Your task to perform on an android device: turn pop-ups on in chrome Image 0: 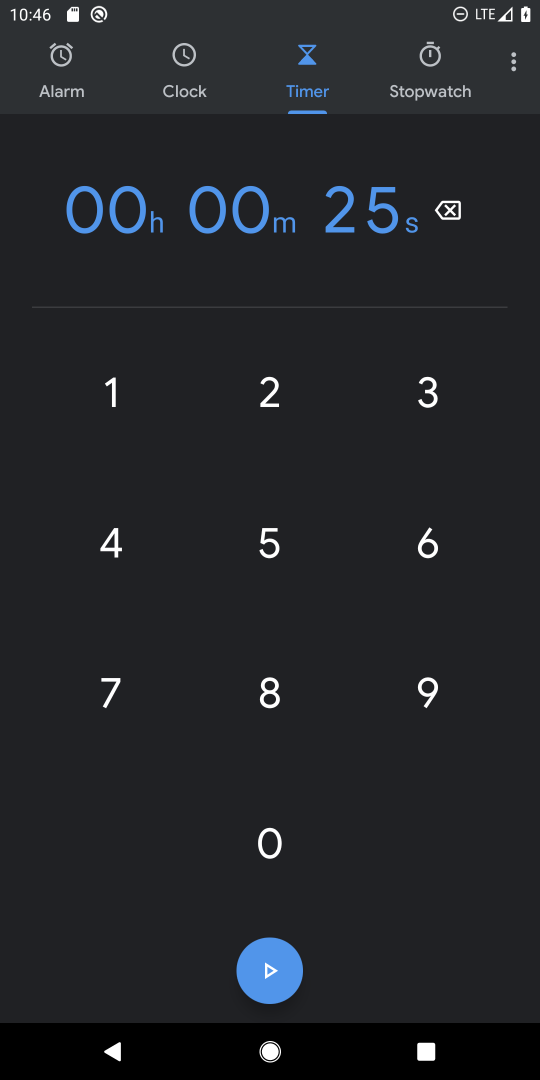
Step 0: press home button
Your task to perform on an android device: turn pop-ups on in chrome Image 1: 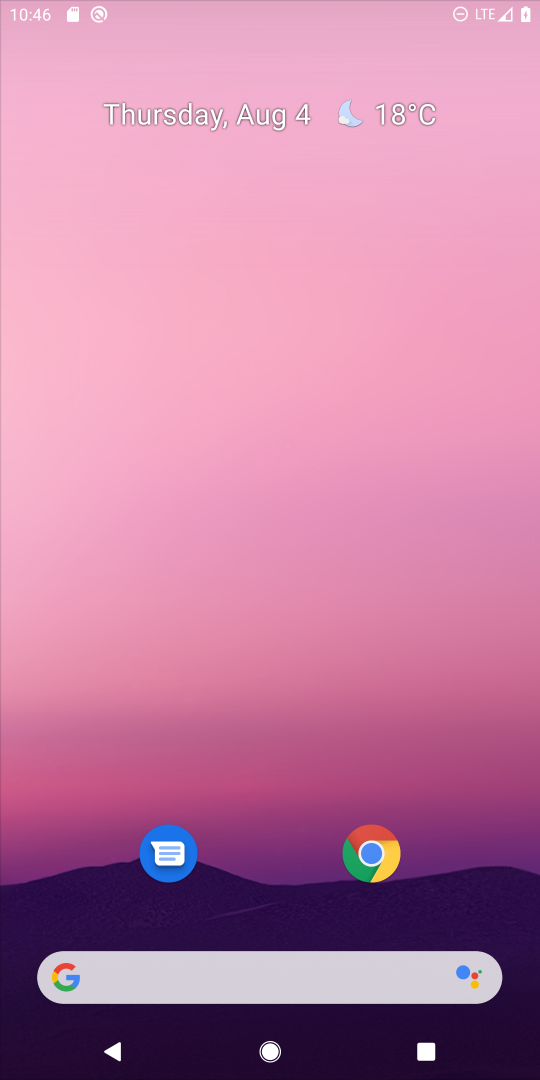
Step 1: press home button
Your task to perform on an android device: turn pop-ups on in chrome Image 2: 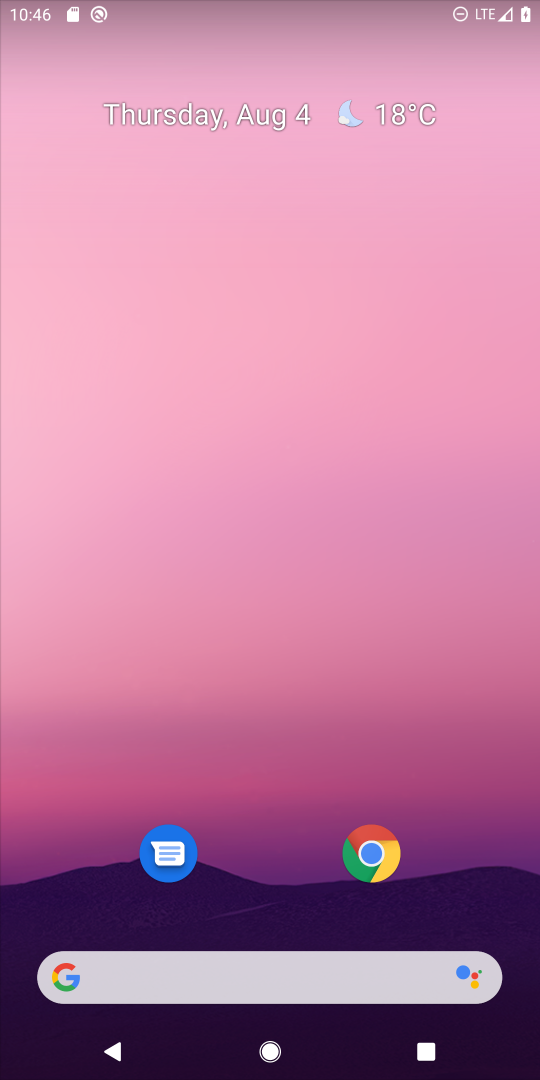
Step 2: drag from (195, 942) to (210, 113)
Your task to perform on an android device: turn pop-ups on in chrome Image 3: 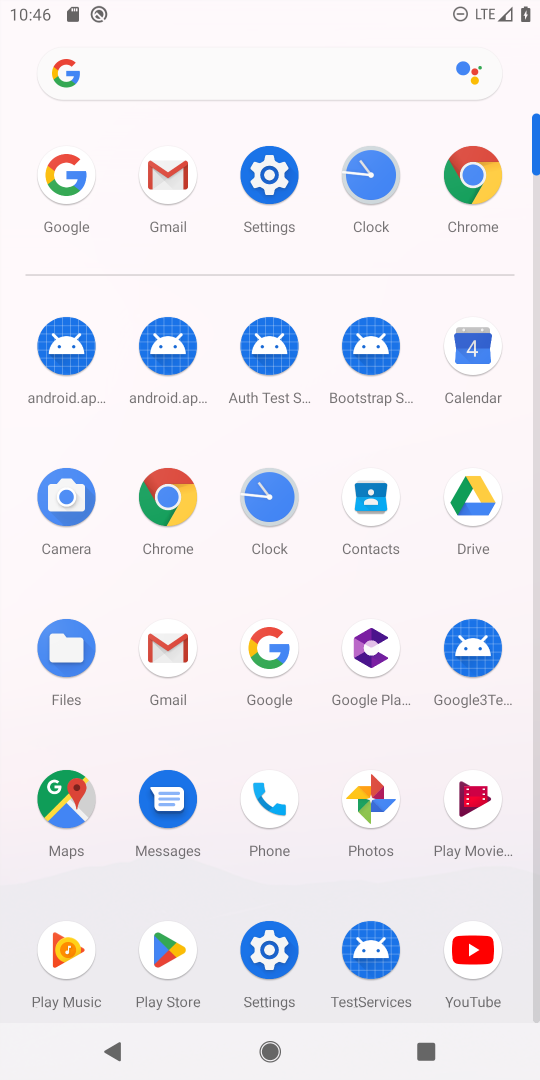
Step 3: click (175, 507)
Your task to perform on an android device: turn pop-ups on in chrome Image 4: 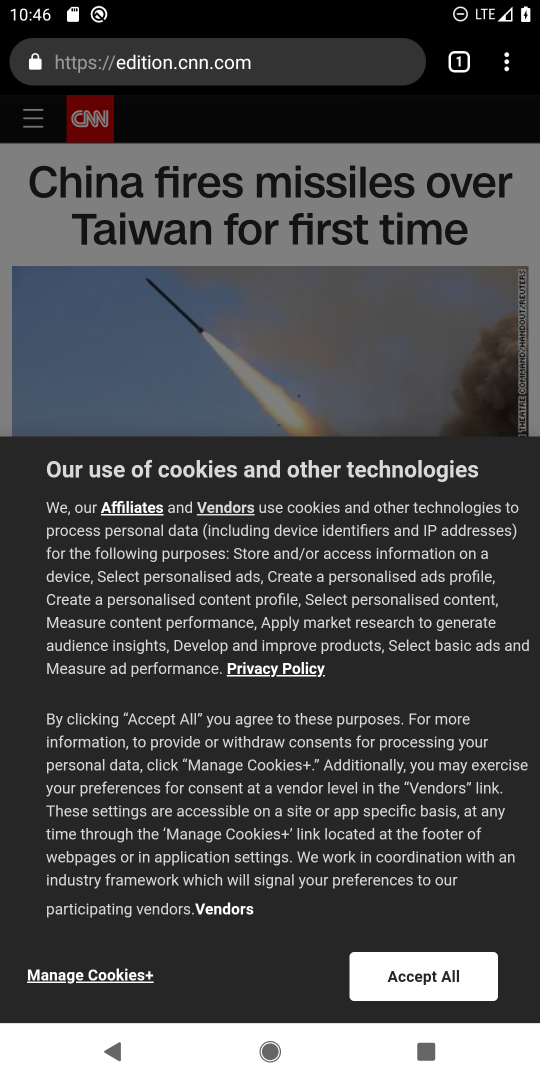
Step 4: drag from (513, 64) to (274, 693)
Your task to perform on an android device: turn pop-ups on in chrome Image 5: 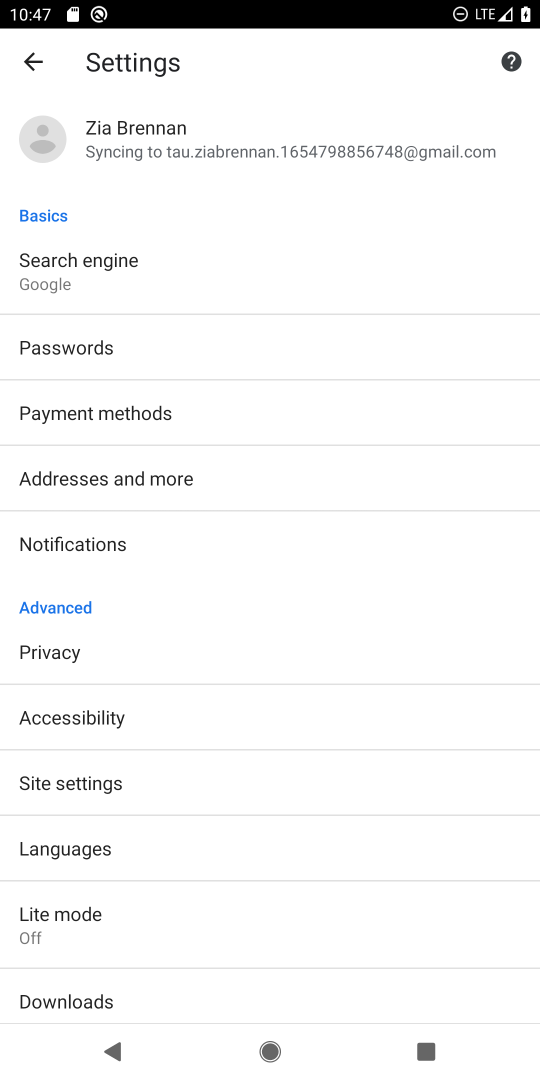
Step 5: click (87, 789)
Your task to perform on an android device: turn pop-ups on in chrome Image 6: 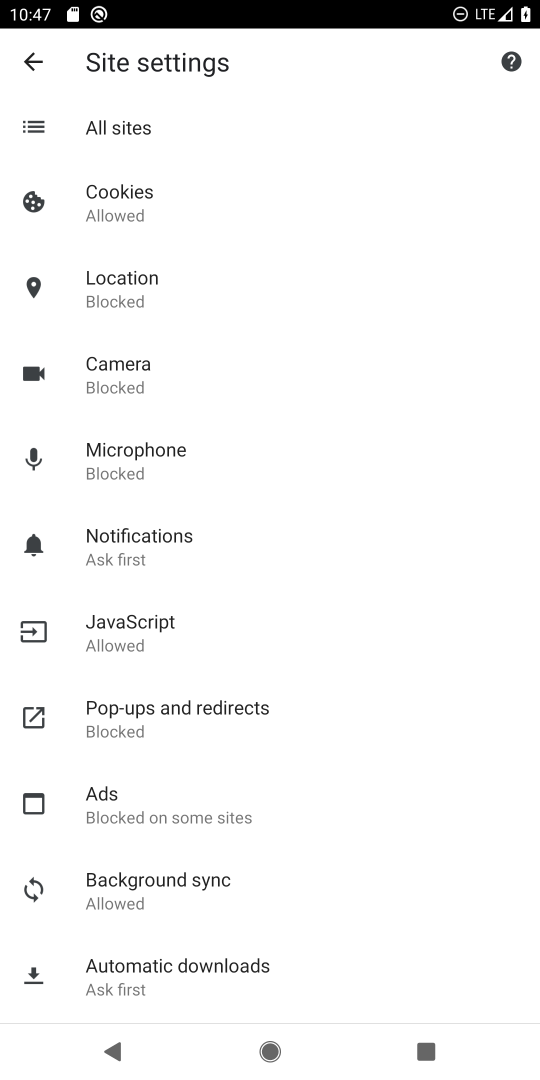
Step 6: click (163, 732)
Your task to perform on an android device: turn pop-ups on in chrome Image 7: 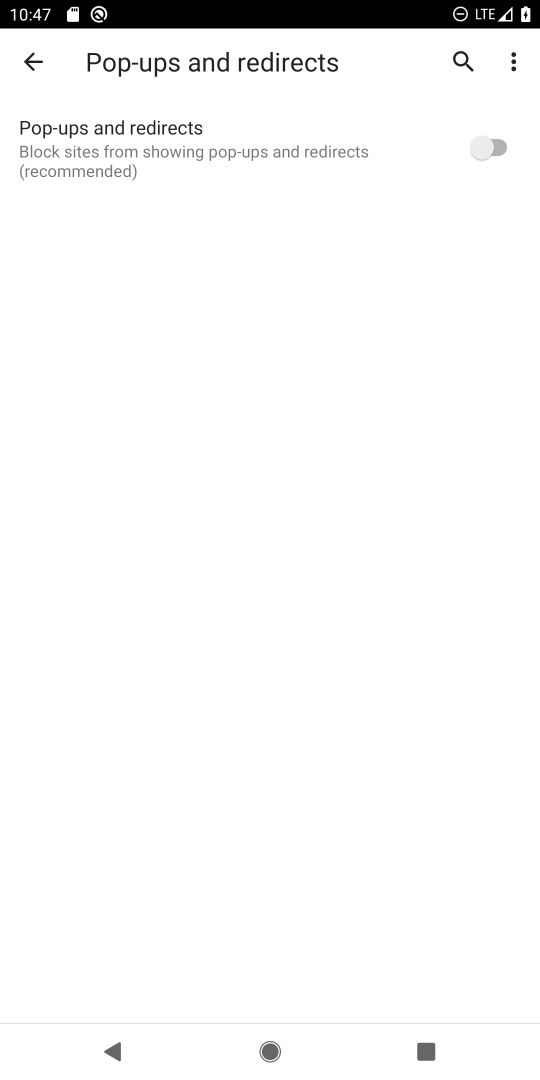
Step 7: click (481, 144)
Your task to perform on an android device: turn pop-ups on in chrome Image 8: 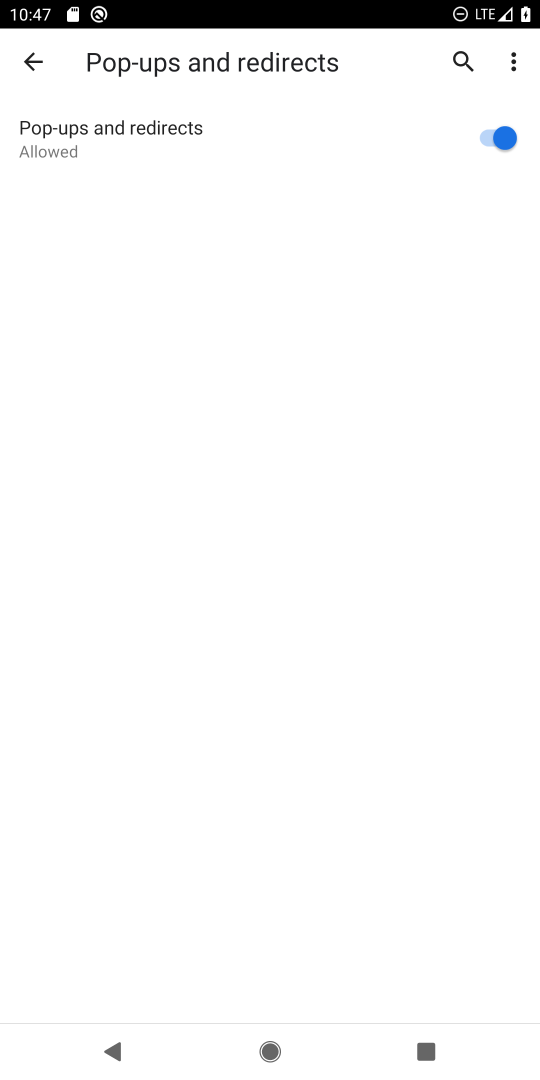
Step 8: task complete